Your task to perform on an android device: Go to network settings Image 0: 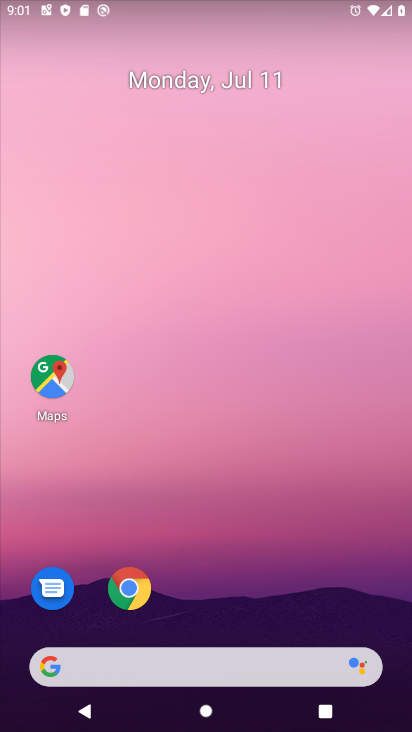
Step 0: drag from (265, 599) to (253, 0)
Your task to perform on an android device: Go to network settings Image 1: 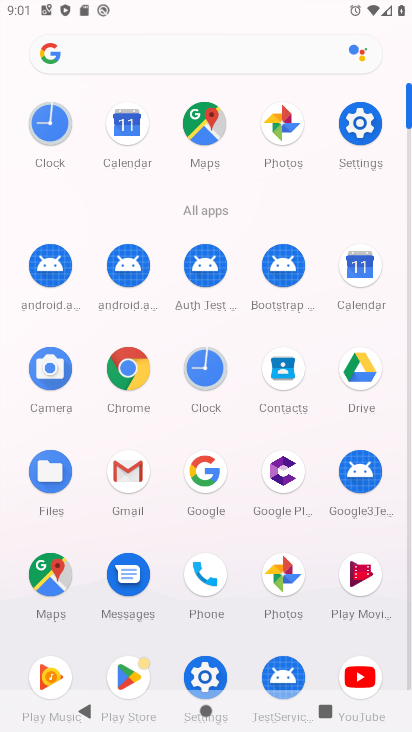
Step 1: click (349, 129)
Your task to perform on an android device: Go to network settings Image 2: 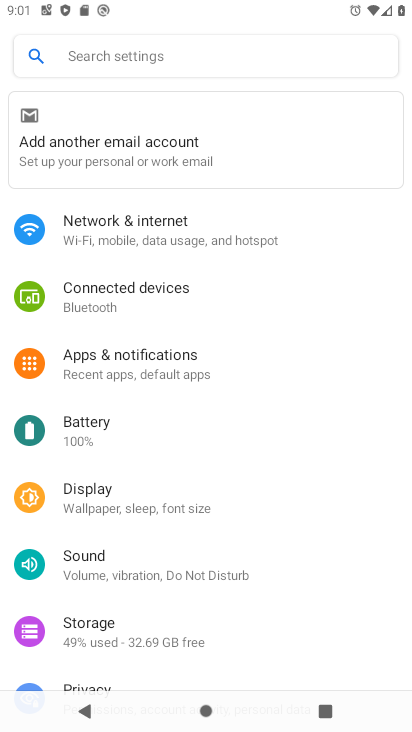
Step 2: click (190, 228)
Your task to perform on an android device: Go to network settings Image 3: 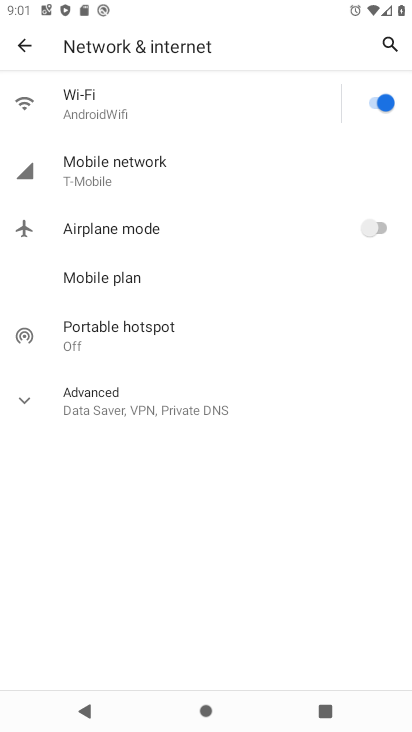
Step 3: task complete